Your task to perform on an android device: turn off picture-in-picture Image 0: 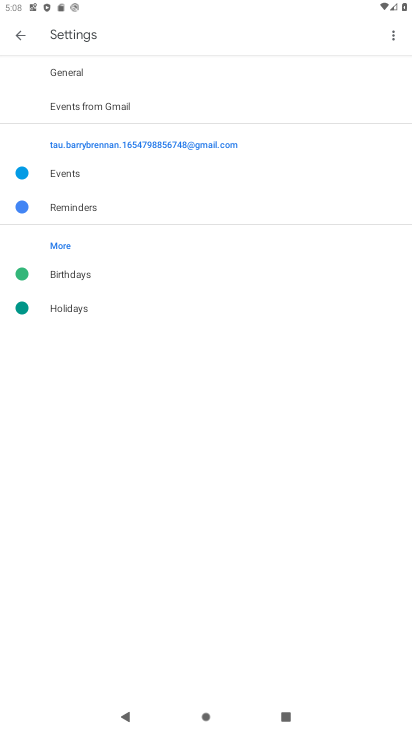
Step 0: press home button
Your task to perform on an android device: turn off picture-in-picture Image 1: 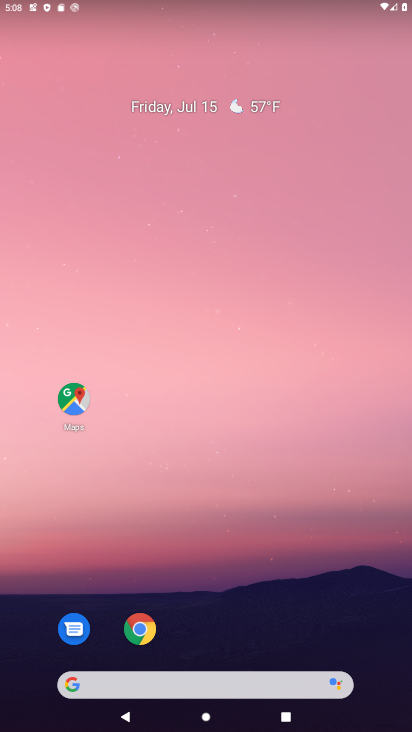
Step 1: click (136, 635)
Your task to perform on an android device: turn off picture-in-picture Image 2: 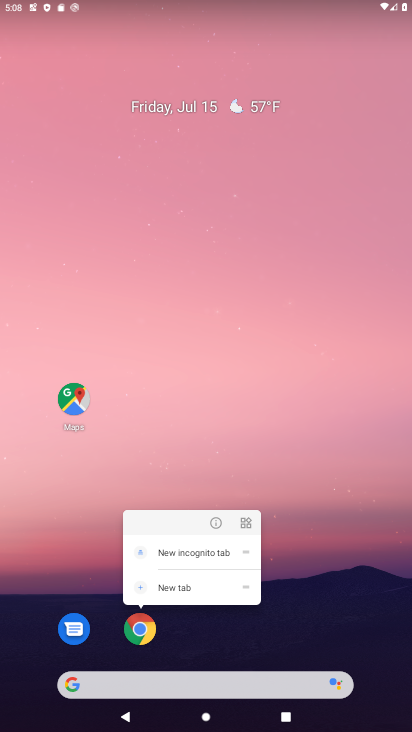
Step 2: click (218, 520)
Your task to perform on an android device: turn off picture-in-picture Image 3: 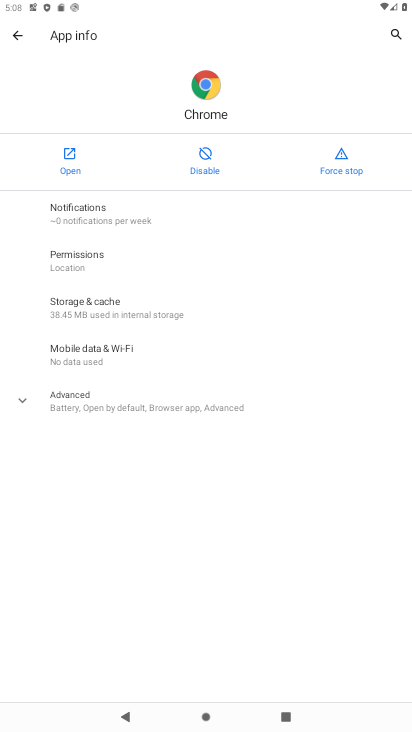
Step 3: click (24, 395)
Your task to perform on an android device: turn off picture-in-picture Image 4: 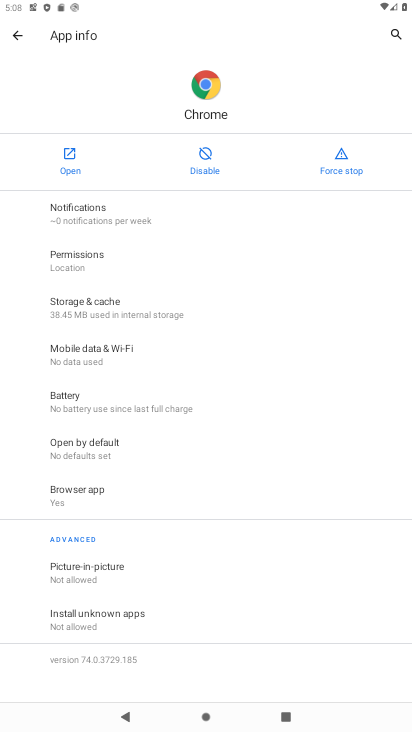
Step 4: click (104, 576)
Your task to perform on an android device: turn off picture-in-picture Image 5: 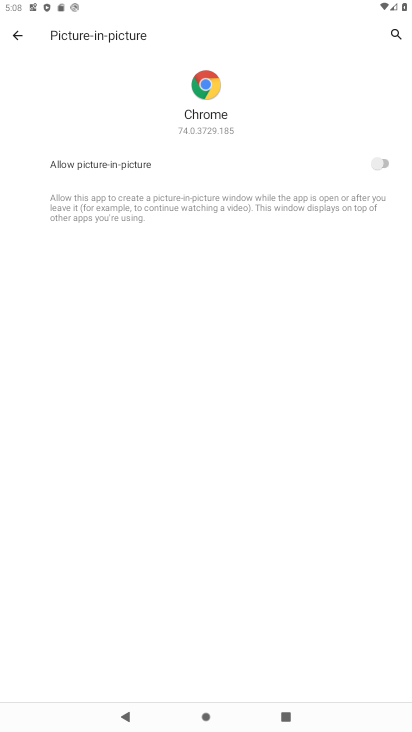
Step 5: task complete